Your task to perform on an android device: Open my contact list Image 0: 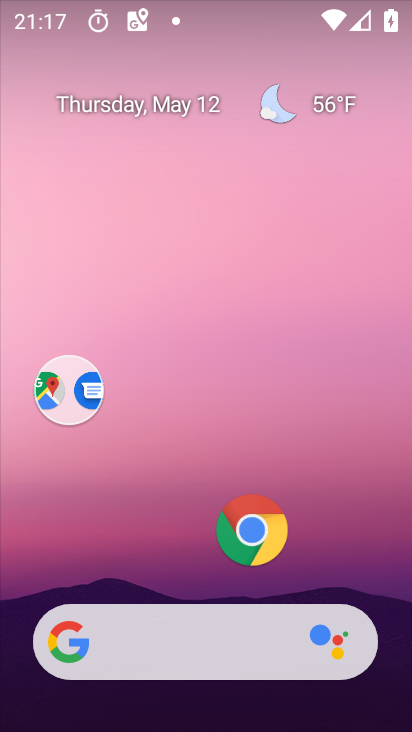
Step 0: drag from (196, 561) to (200, 111)
Your task to perform on an android device: Open my contact list Image 1: 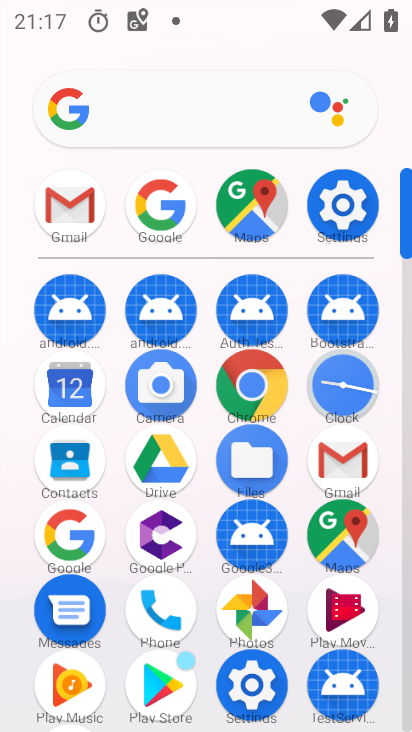
Step 1: click (72, 471)
Your task to perform on an android device: Open my contact list Image 2: 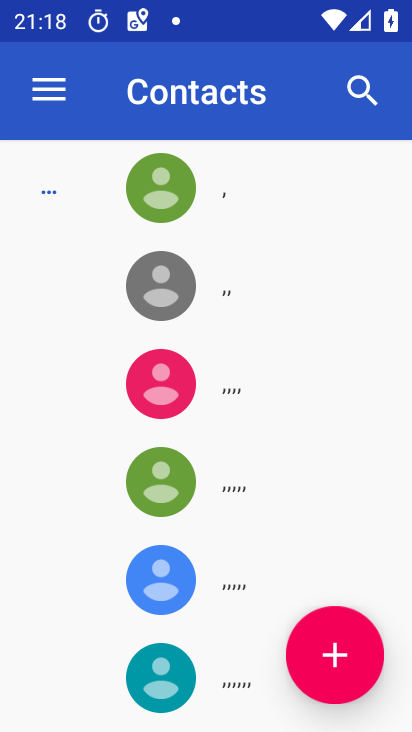
Step 2: task complete